Your task to perform on an android device: see tabs open on other devices in the chrome app Image 0: 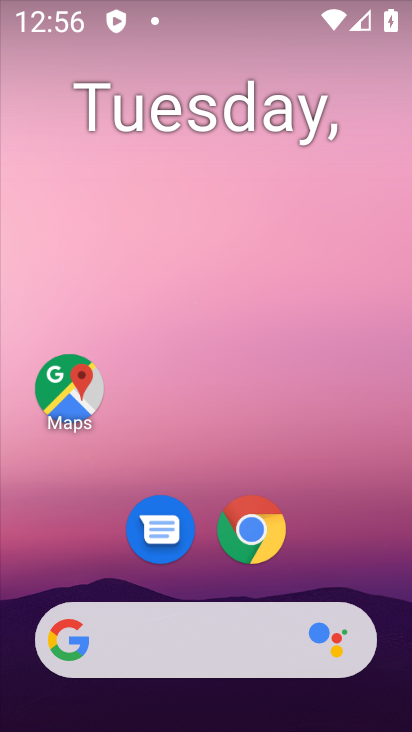
Step 0: click (252, 526)
Your task to perform on an android device: see tabs open on other devices in the chrome app Image 1: 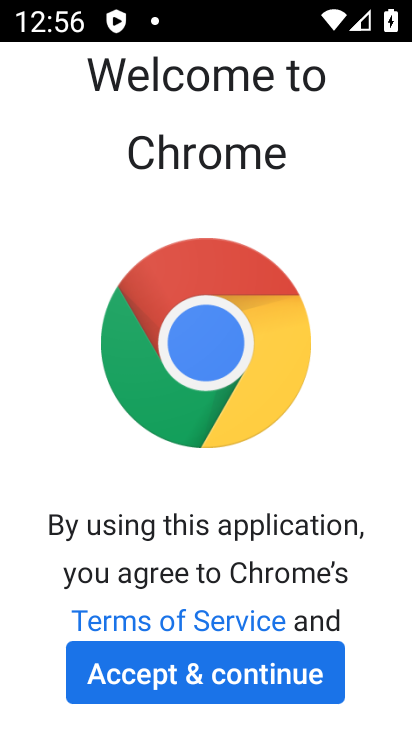
Step 1: click (194, 679)
Your task to perform on an android device: see tabs open on other devices in the chrome app Image 2: 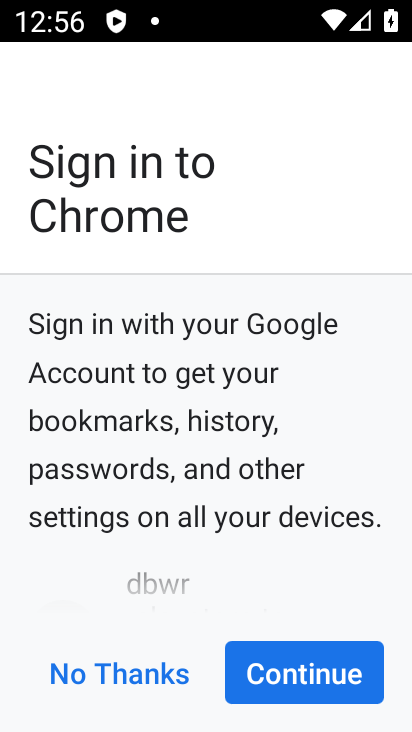
Step 2: click (285, 675)
Your task to perform on an android device: see tabs open on other devices in the chrome app Image 3: 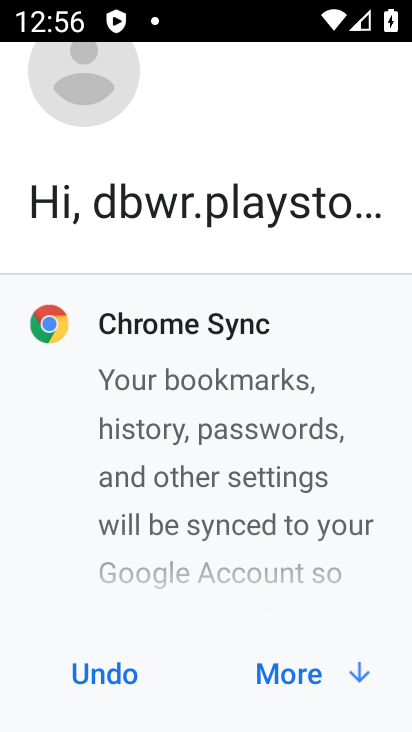
Step 3: click (285, 675)
Your task to perform on an android device: see tabs open on other devices in the chrome app Image 4: 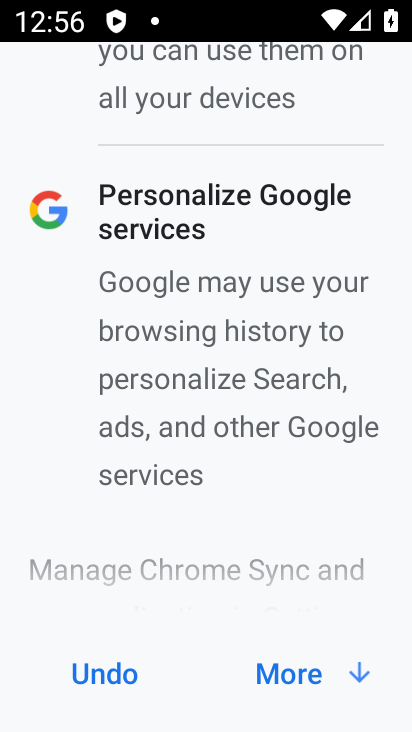
Step 4: click (299, 678)
Your task to perform on an android device: see tabs open on other devices in the chrome app Image 5: 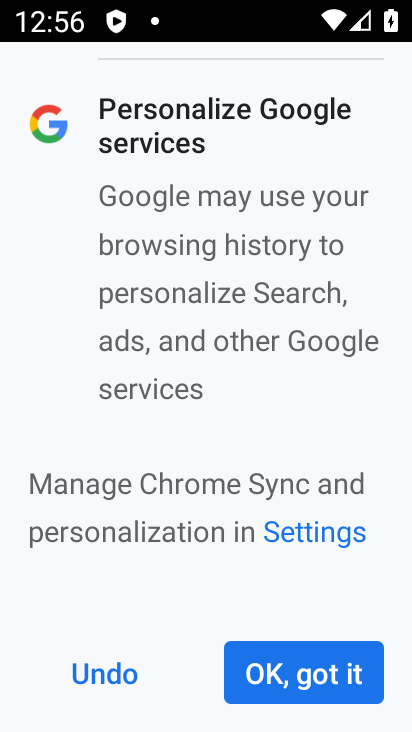
Step 5: click (299, 678)
Your task to perform on an android device: see tabs open on other devices in the chrome app Image 6: 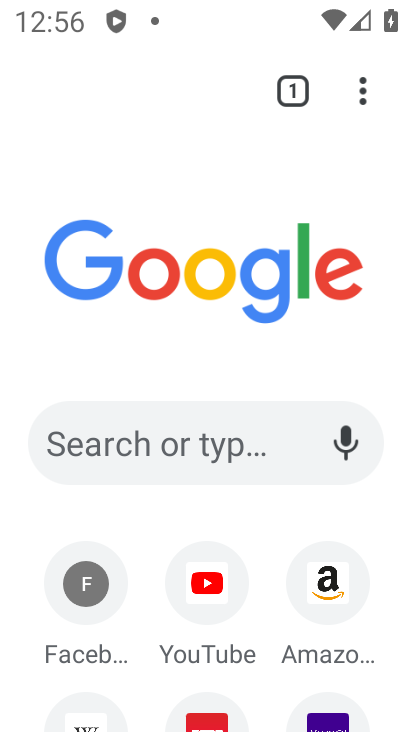
Step 6: click (362, 92)
Your task to perform on an android device: see tabs open on other devices in the chrome app Image 7: 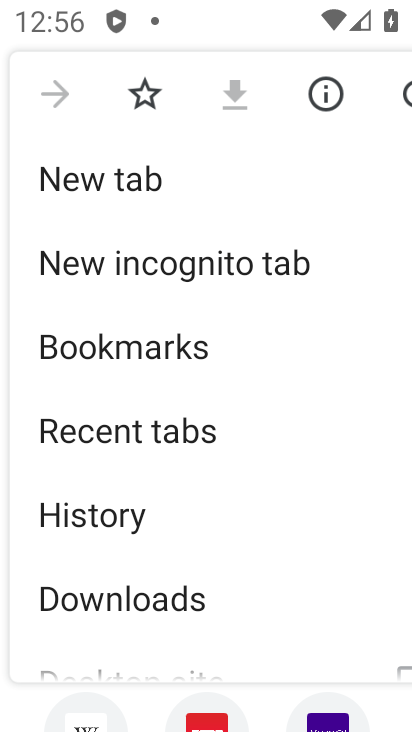
Step 7: click (178, 440)
Your task to perform on an android device: see tabs open on other devices in the chrome app Image 8: 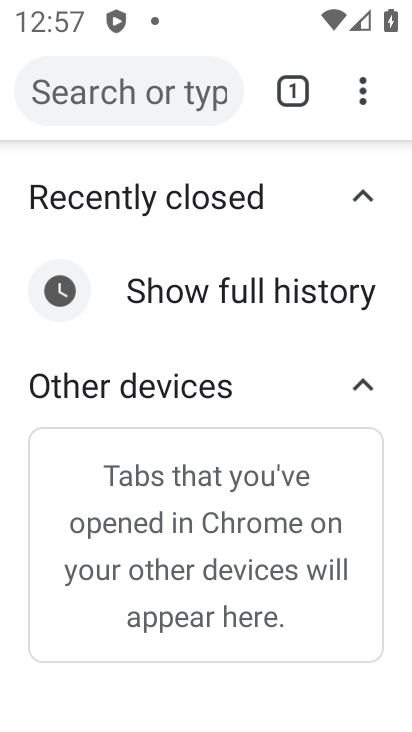
Step 8: task complete